Your task to perform on an android device: check battery use Image 0: 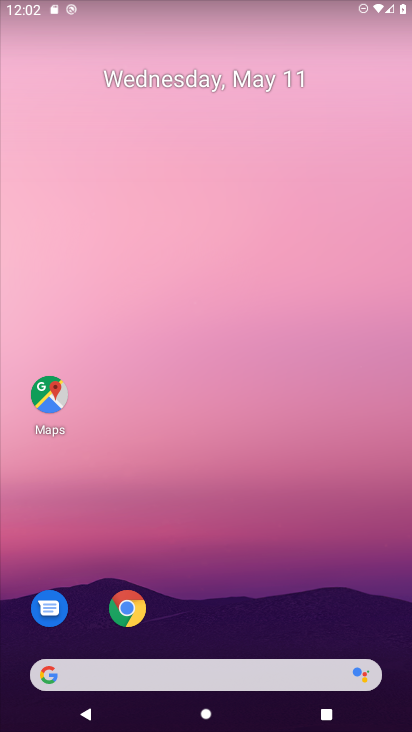
Step 0: drag from (291, 500) to (275, 38)
Your task to perform on an android device: check battery use Image 1: 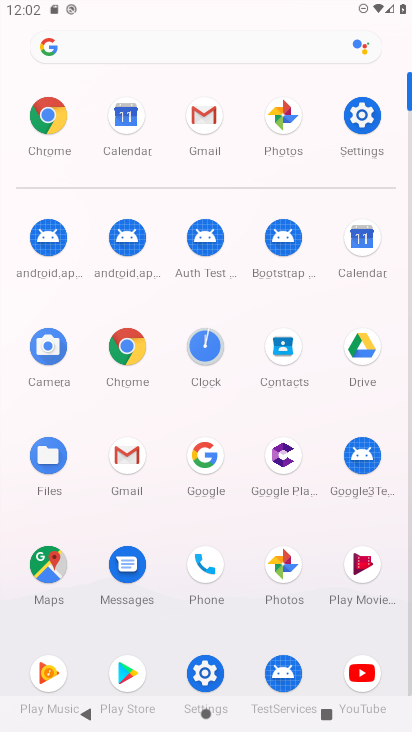
Step 1: click (359, 112)
Your task to perform on an android device: check battery use Image 2: 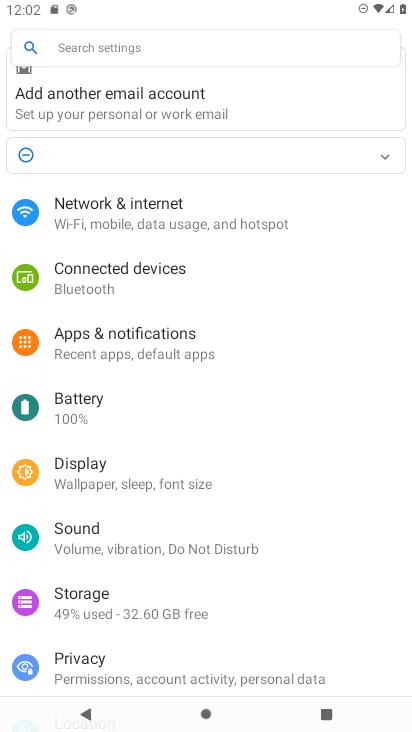
Step 2: click (111, 419)
Your task to perform on an android device: check battery use Image 3: 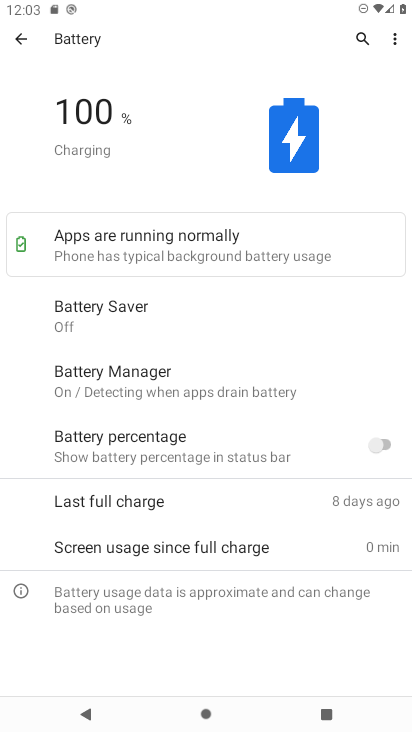
Step 3: click (394, 38)
Your task to perform on an android device: check battery use Image 4: 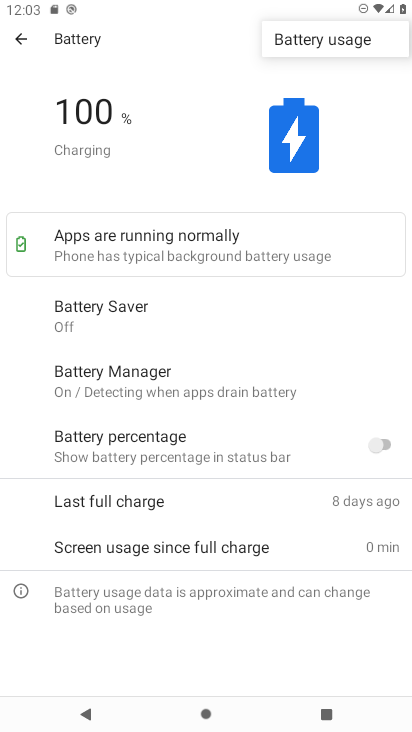
Step 4: click (353, 38)
Your task to perform on an android device: check battery use Image 5: 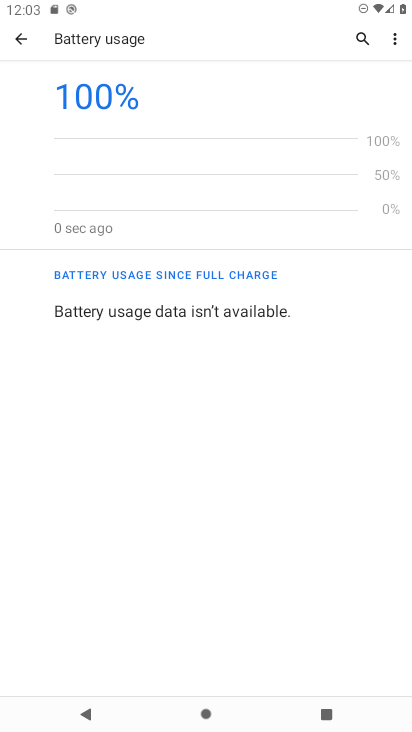
Step 5: task complete